Your task to perform on an android device: turn off picture-in-picture Image 0: 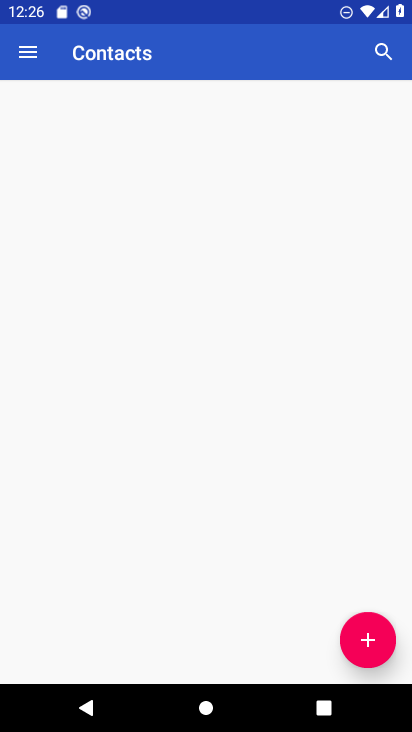
Step 0: click (124, 581)
Your task to perform on an android device: turn off picture-in-picture Image 1: 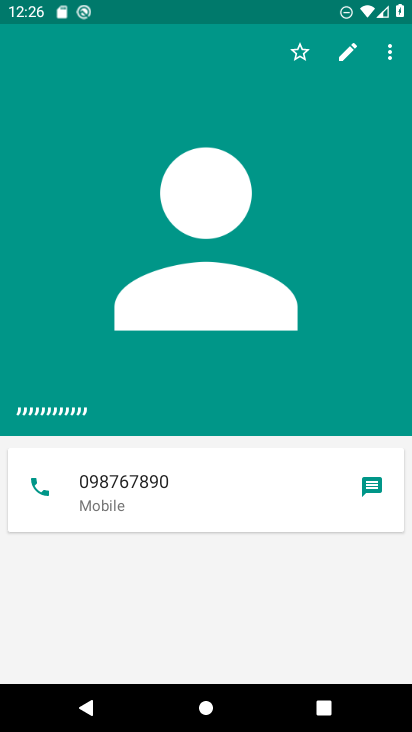
Step 1: press home button
Your task to perform on an android device: turn off picture-in-picture Image 2: 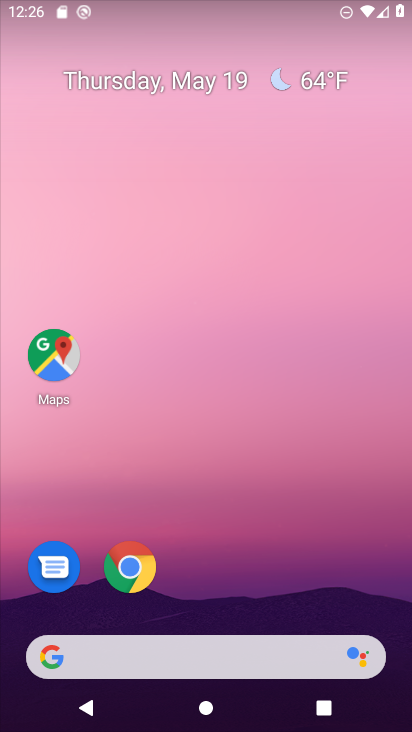
Step 2: drag from (290, 502) to (335, 57)
Your task to perform on an android device: turn off picture-in-picture Image 3: 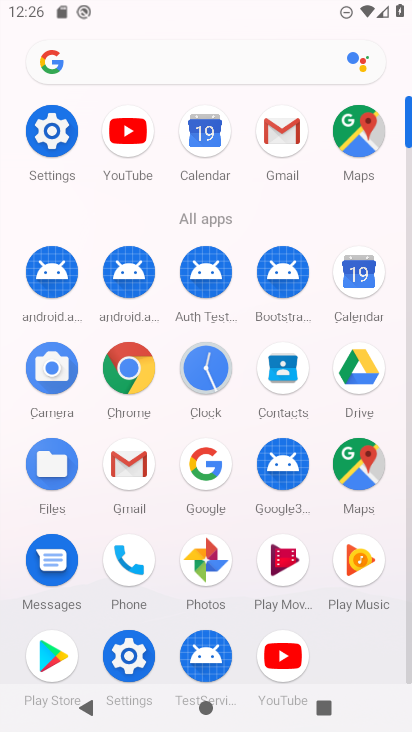
Step 3: click (53, 143)
Your task to perform on an android device: turn off picture-in-picture Image 4: 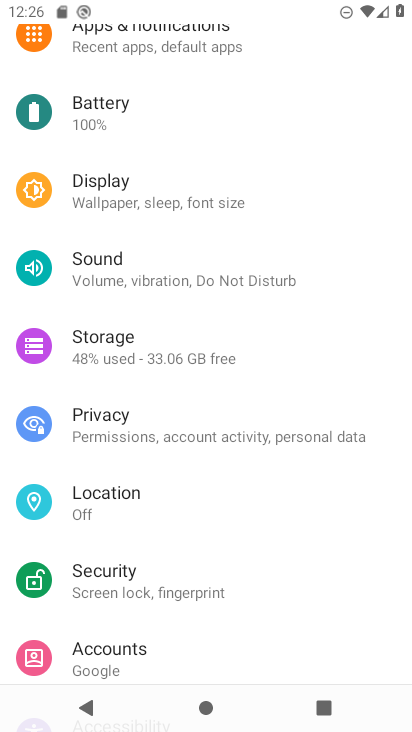
Step 4: drag from (204, 167) to (243, 620)
Your task to perform on an android device: turn off picture-in-picture Image 5: 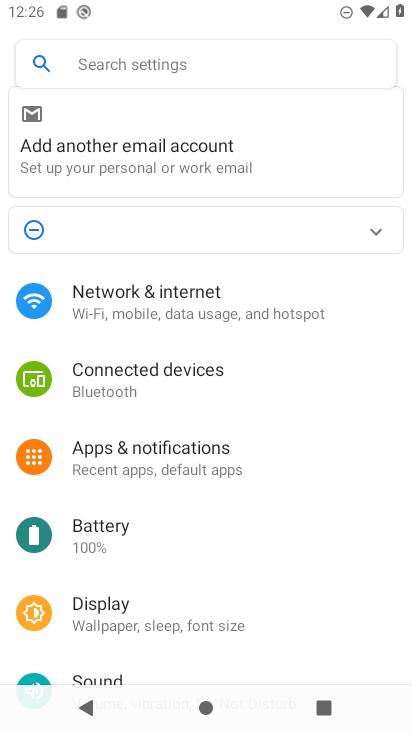
Step 5: click (195, 460)
Your task to perform on an android device: turn off picture-in-picture Image 6: 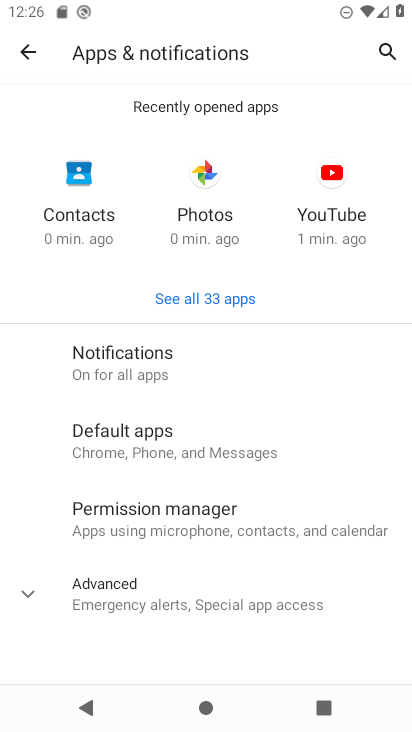
Step 6: click (152, 599)
Your task to perform on an android device: turn off picture-in-picture Image 7: 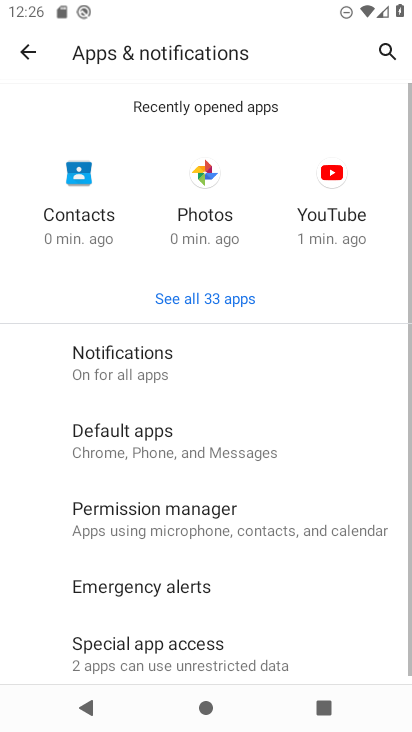
Step 7: click (176, 643)
Your task to perform on an android device: turn off picture-in-picture Image 8: 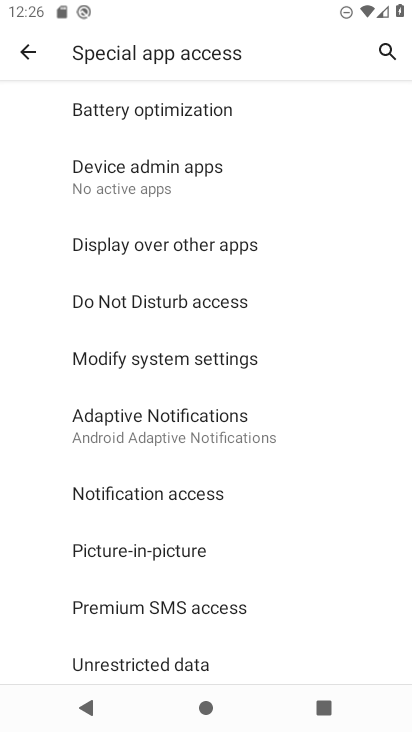
Step 8: click (190, 561)
Your task to perform on an android device: turn off picture-in-picture Image 9: 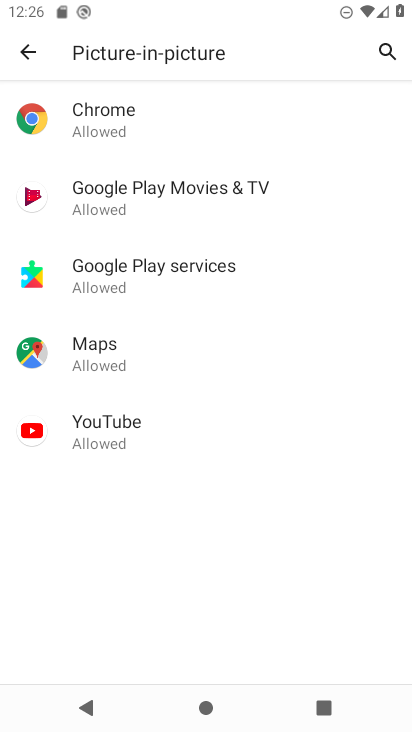
Step 9: click (319, 132)
Your task to perform on an android device: turn off picture-in-picture Image 10: 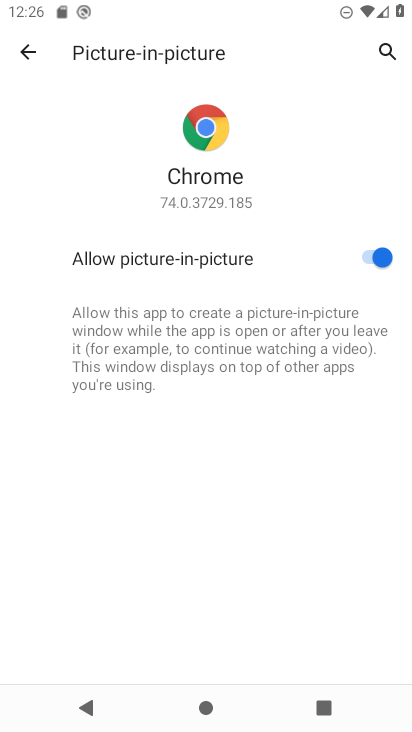
Step 10: click (387, 259)
Your task to perform on an android device: turn off picture-in-picture Image 11: 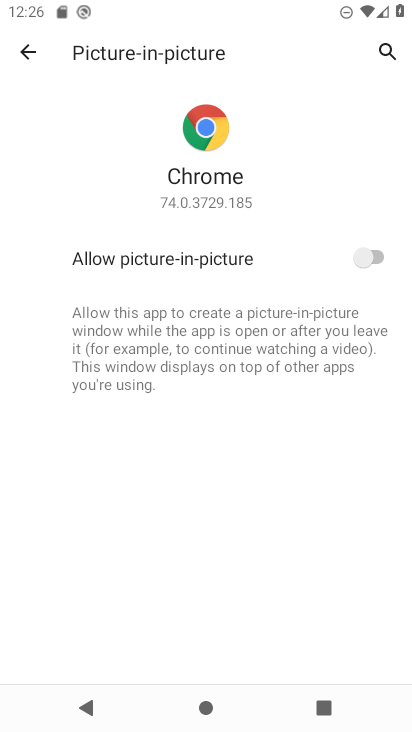
Step 11: task complete